Your task to perform on an android device: open a new tab in the chrome app Image 0: 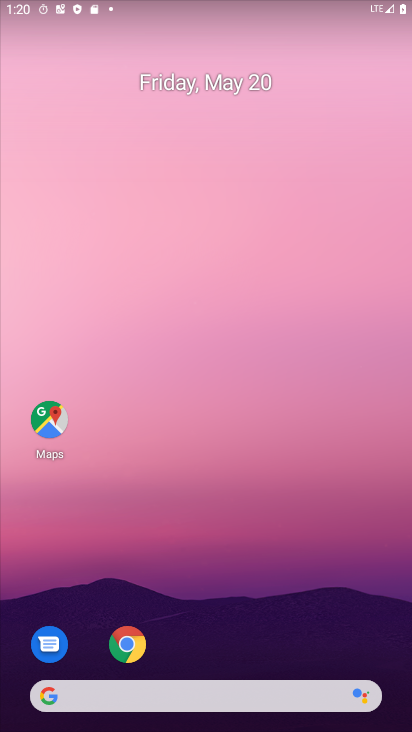
Step 0: drag from (354, 536) to (399, 79)
Your task to perform on an android device: open a new tab in the chrome app Image 1: 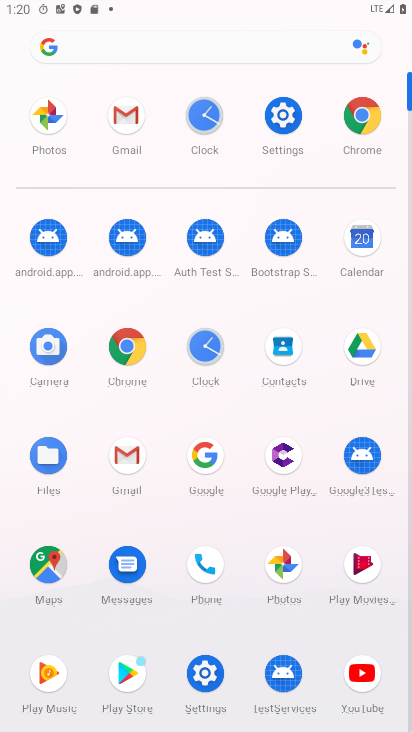
Step 1: click (375, 126)
Your task to perform on an android device: open a new tab in the chrome app Image 2: 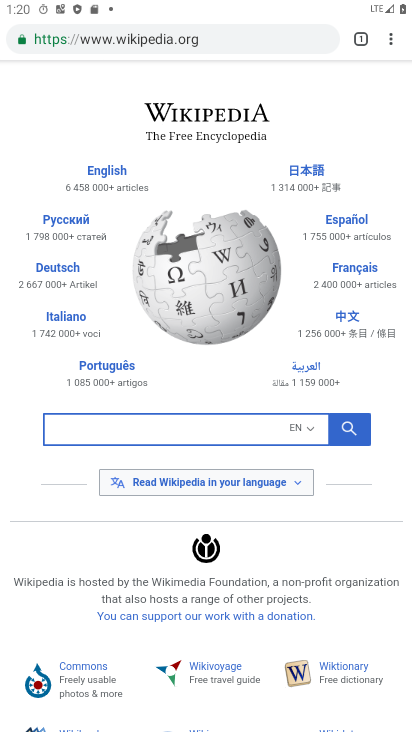
Step 2: task complete